Your task to perform on an android device: Open display settings Image 0: 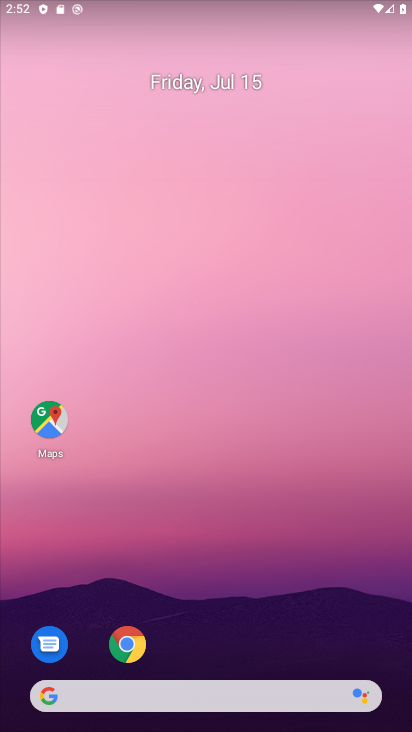
Step 0: drag from (322, 702) to (325, 14)
Your task to perform on an android device: Open display settings Image 1: 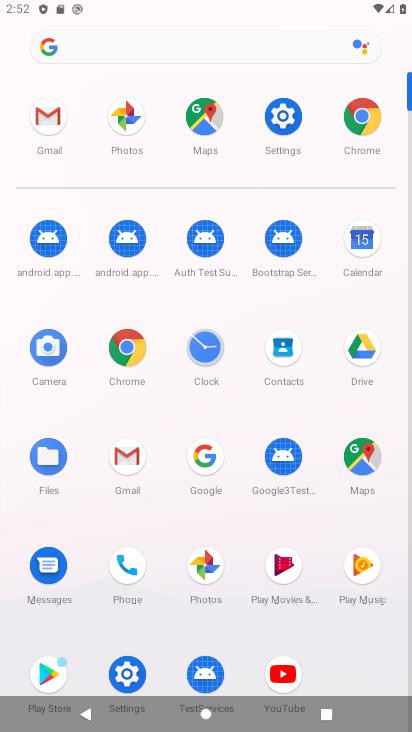
Step 1: click (284, 110)
Your task to perform on an android device: Open display settings Image 2: 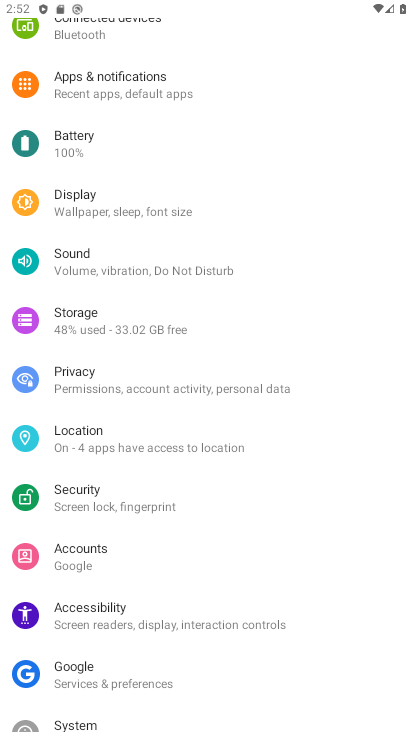
Step 2: click (95, 197)
Your task to perform on an android device: Open display settings Image 3: 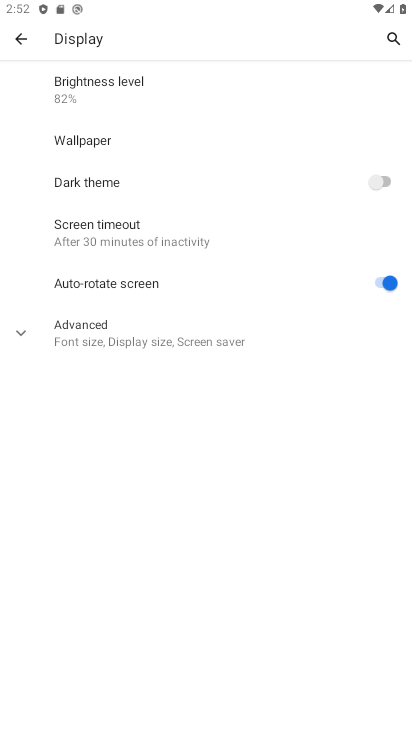
Step 3: task complete